Your task to perform on an android device: Is it going to rain today? Image 0: 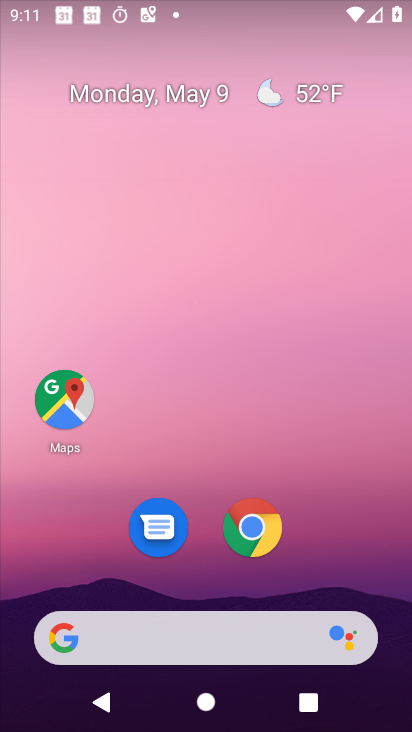
Step 0: press home button
Your task to perform on an android device: Is it going to rain today? Image 1: 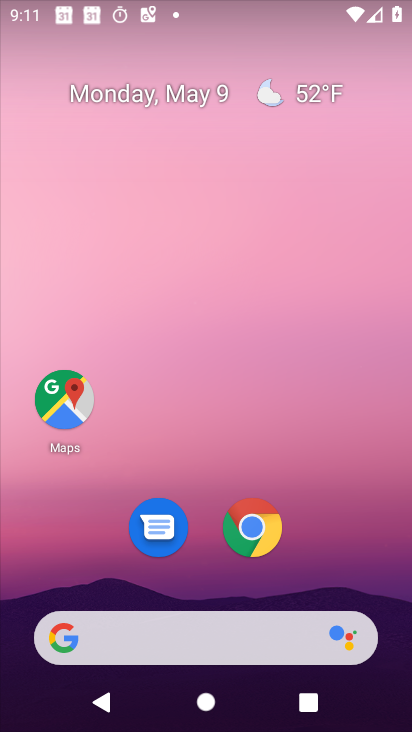
Step 1: drag from (354, 564) to (372, 196)
Your task to perform on an android device: Is it going to rain today? Image 2: 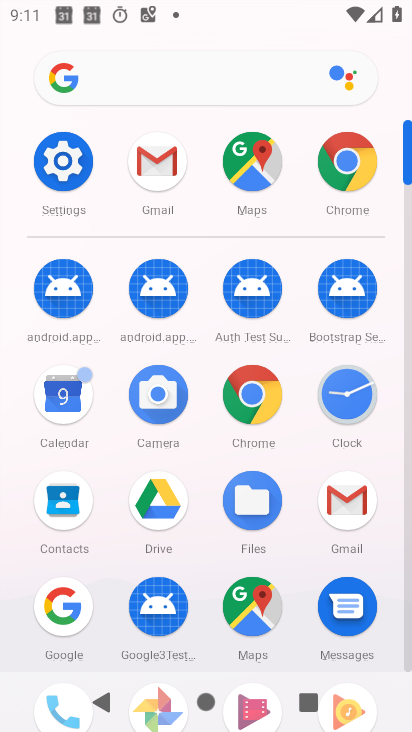
Step 2: click (254, 405)
Your task to perform on an android device: Is it going to rain today? Image 3: 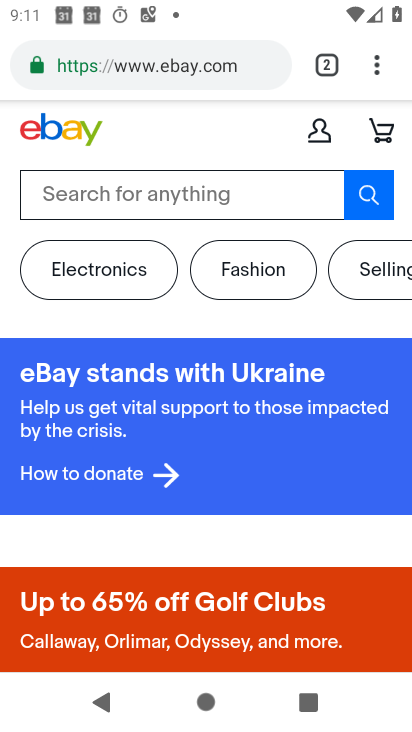
Step 3: click (188, 65)
Your task to perform on an android device: Is it going to rain today? Image 4: 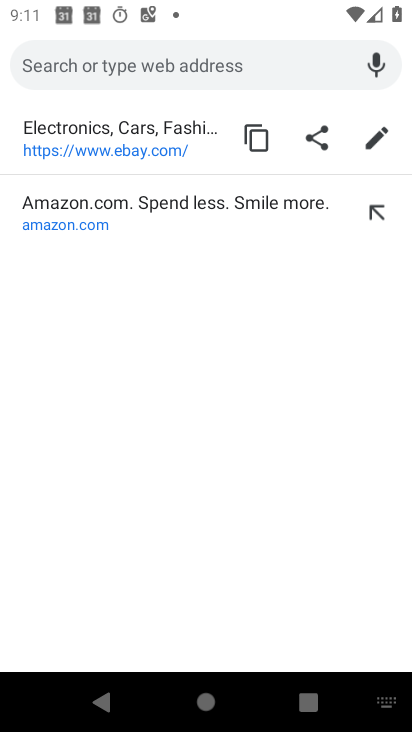
Step 4: type "is it going to rain today"
Your task to perform on an android device: Is it going to rain today? Image 5: 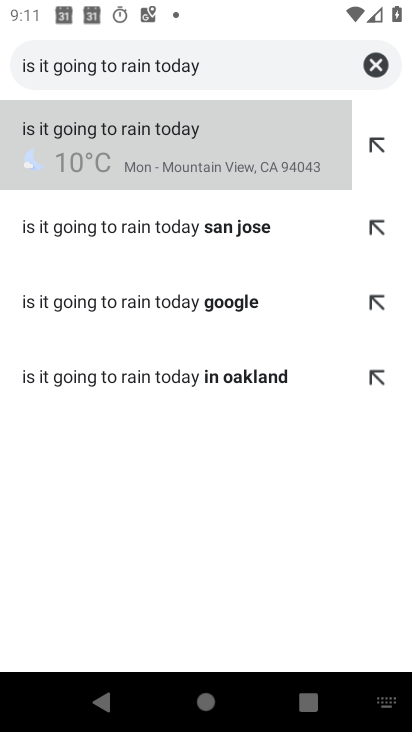
Step 5: click (245, 181)
Your task to perform on an android device: Is it going to rain today? Image 6: 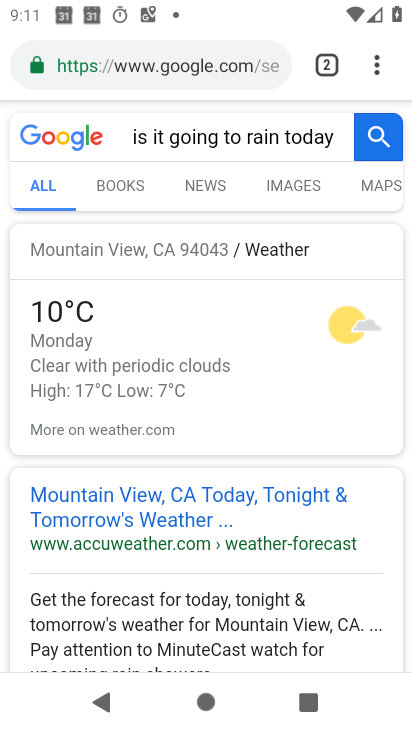
Step 6: task complete